Your task to perform on an android device: refresh tabs in the chrome app Image 0: 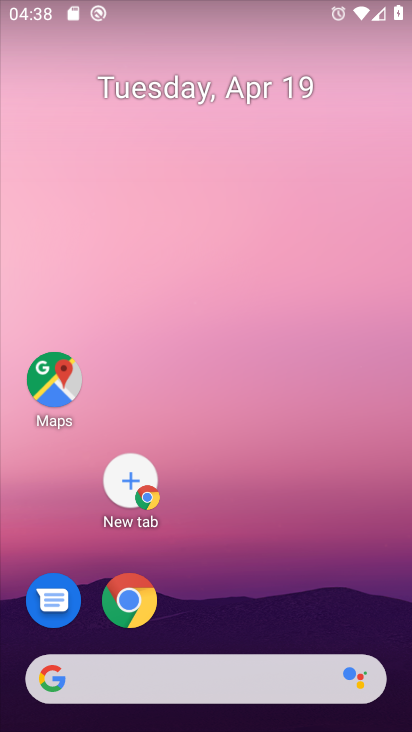
Step 0: click (153, 591)
Your task to perform on an android device: refresh tabs in the chrome app Image 1: 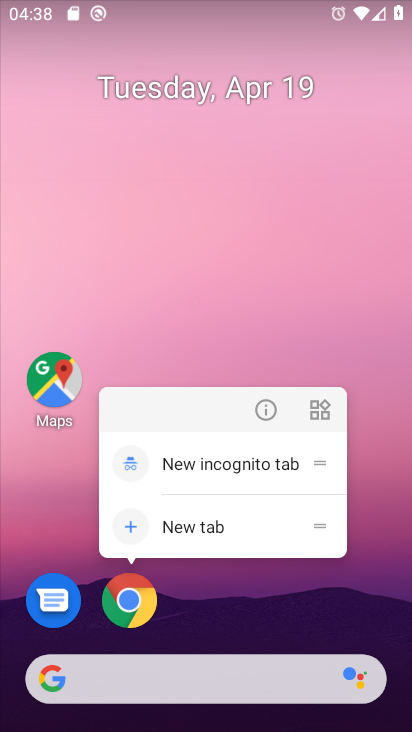
Step 1: click (183, 533)
Your task to perform on an android device: refresh tabs in the chrome app Image 2: 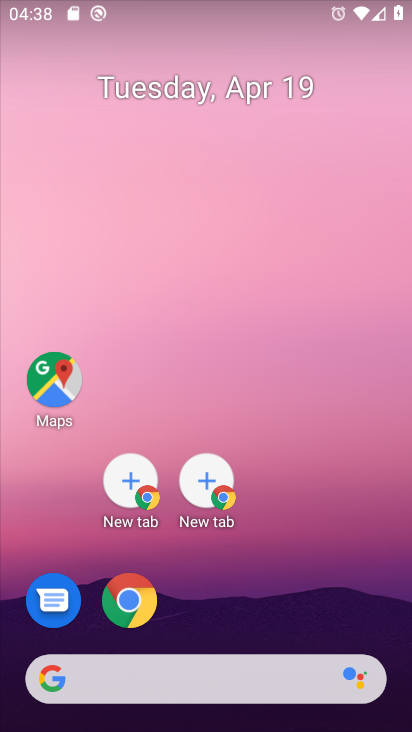
Step 2: click (136, 587)
Your task to perform on an android device: refresh tabs in the chrome app Image 3: 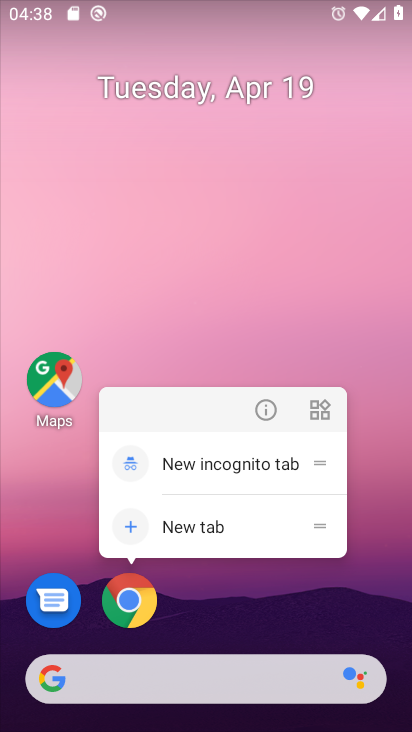
Step 3: click (208, 527)
Your task to perform on an android device: refresh tabs in the chrome app Image 4: 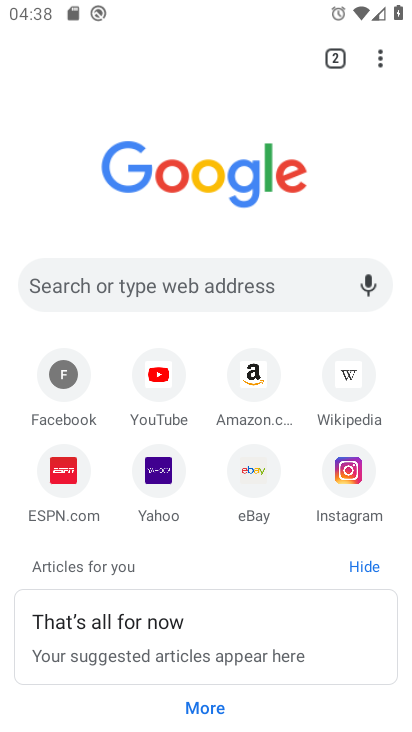
Step 4: click (378, 46)
Your task to perform on an android device: refresh tabs in the chrome app Image 5: 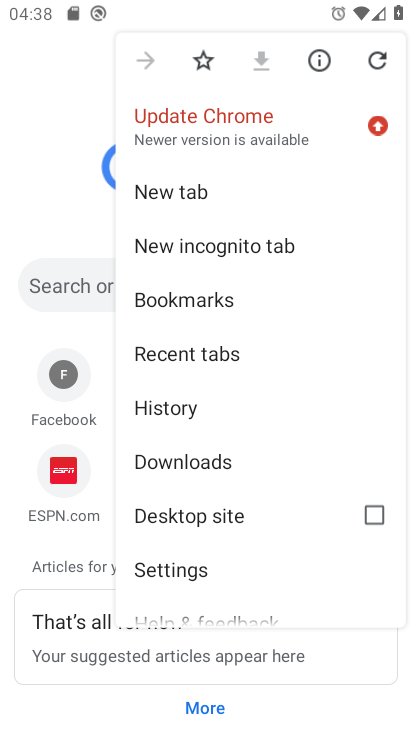
Step 5: click (378, 65)
Your task to perform on an android device: refresh tabs in the chrome app Image 6: 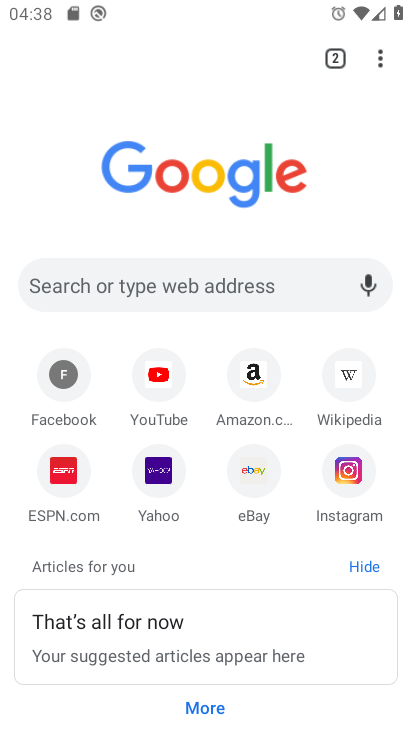
Step 6: task complete